Your task to perform on an android device: check data usage Image 0: 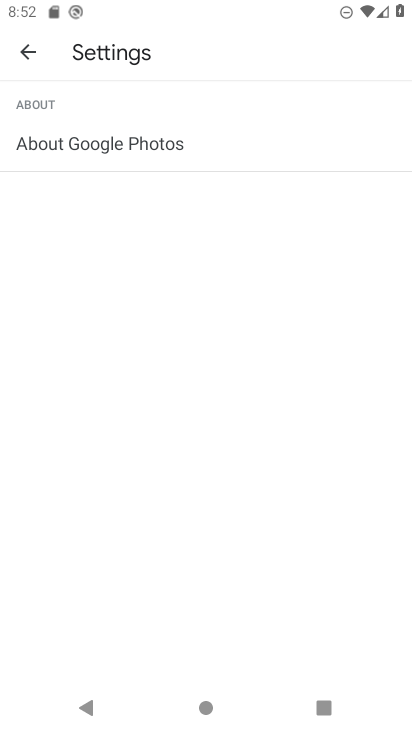
Step 0: press back button
Your task to perform on an android device: check data usage Image 1: 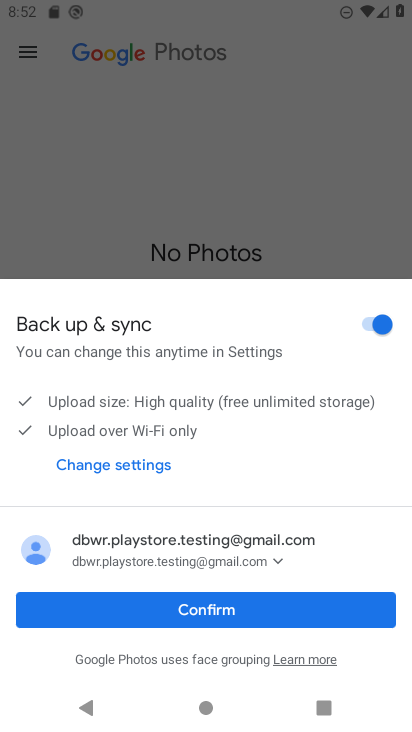
Step 1: press home button
Your task to perform on an android device: check data usage Image 2: 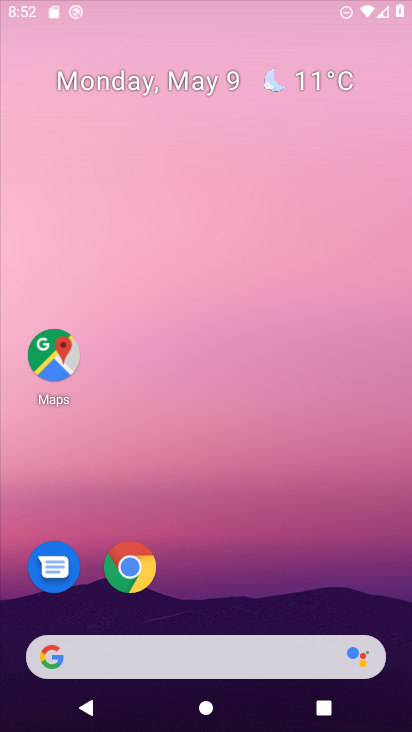
Step 2: drag from (169, 607) to (190, 203)
Your task to perform on an android device: check data usage Image 3: 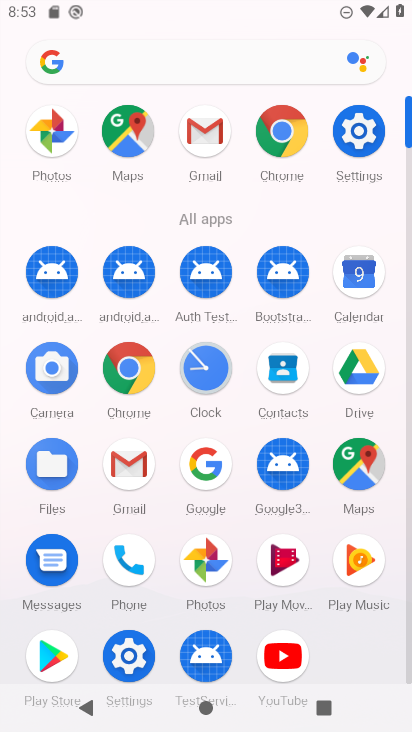
Step 3: click (123, 654)
Your task to perform on an android device: check data usage Image 4: 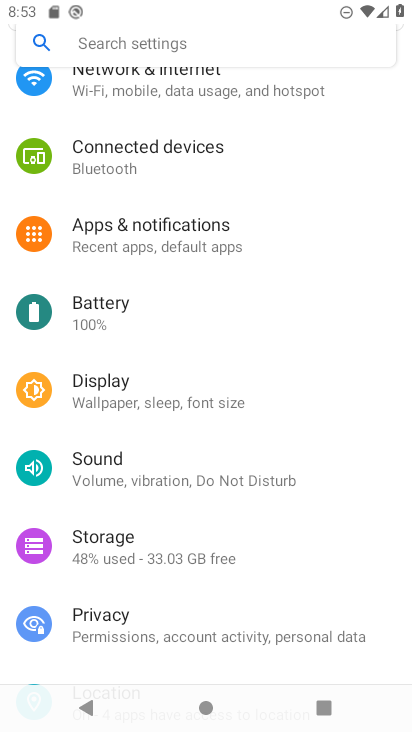
Step 4: drag from (222, 230) to (199, 692)
Your task to perform on an android device: check data usage Image 5: 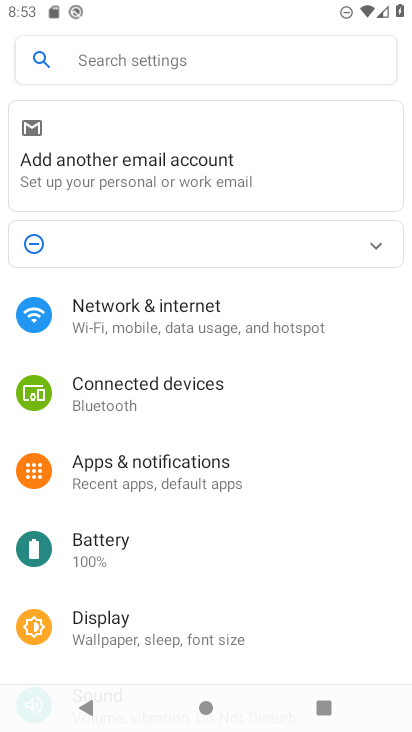
Step 5: click (207, 321)
Your task to perform on an android device: check data usage Image 6: 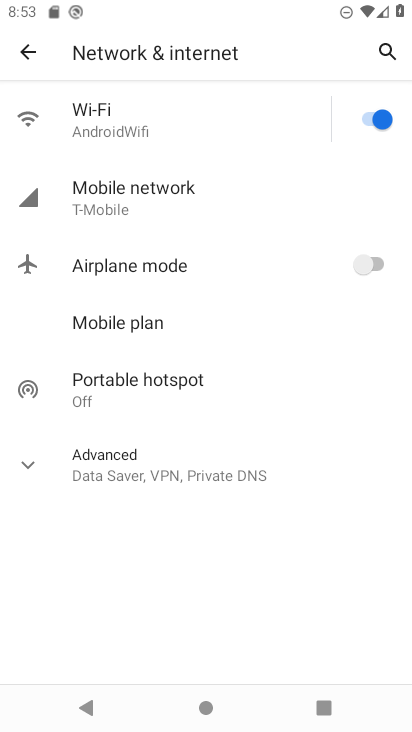
Step 6: click (143, 486)
Your task to perform on an android device: check data usage Image 7: 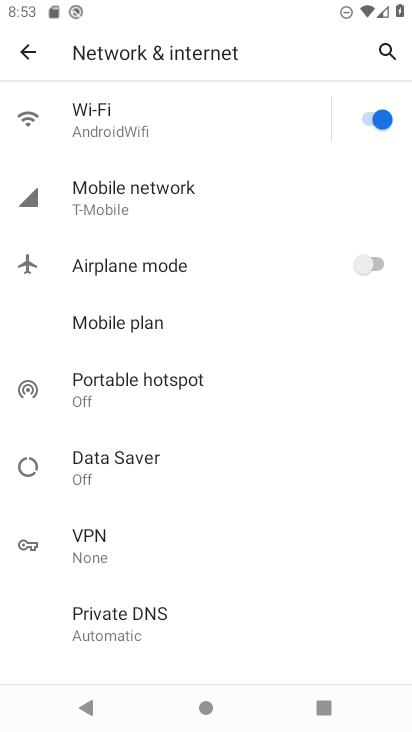
Step 7: click (172, 187)
Your task to perform on an android device: check data usage Image 8: 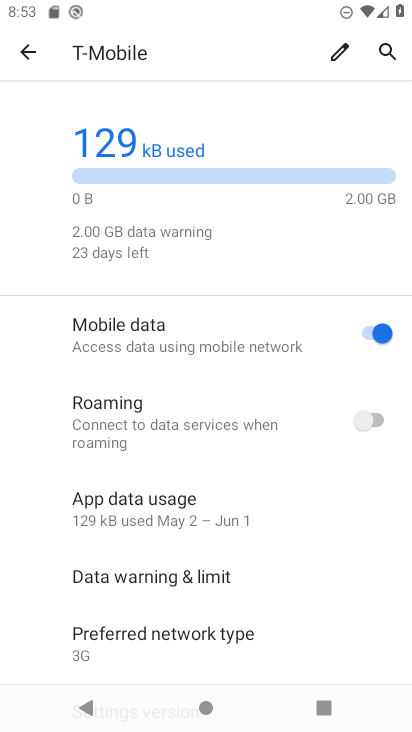
Step 8: click (290, 510)
Your task to perform on an android device: check data usage Image 9: 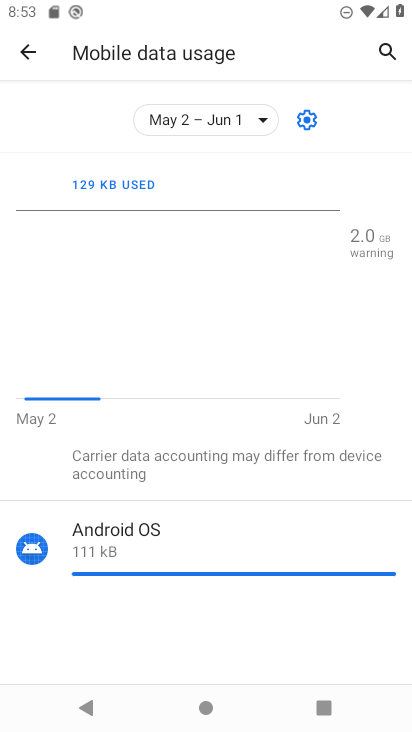
Step 9: task complete